Your task to perform on an android device: Go to wifi settings Image 0: 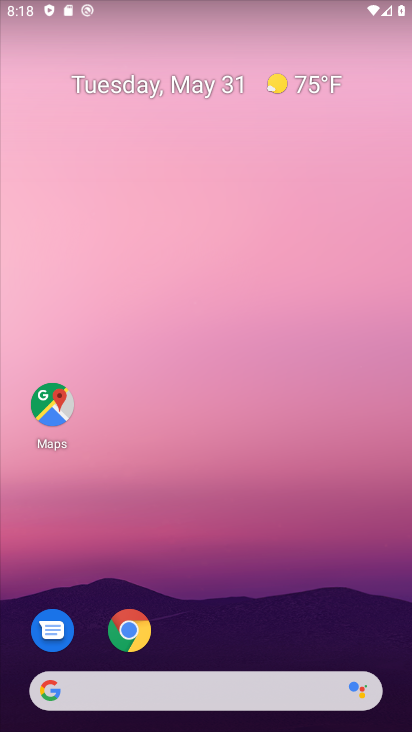
Step 0: drag from (202, 668) to (283, 183)
Your task to perform on an android device: Go to wifi settings Image 1: 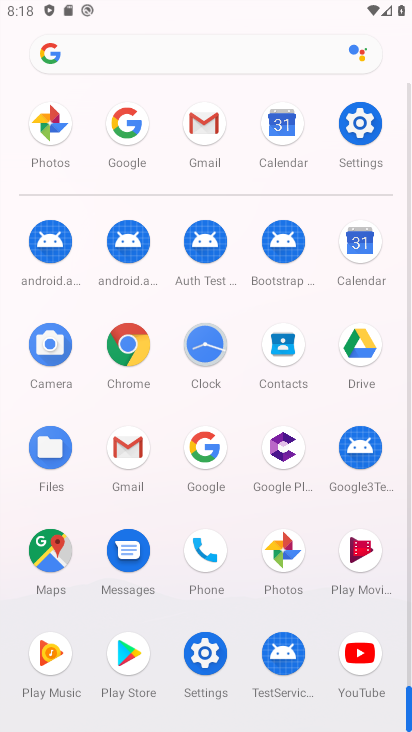
Step 1: click (370, 143)
Your task to perform on an android device: Go to wifi settings Image 2: 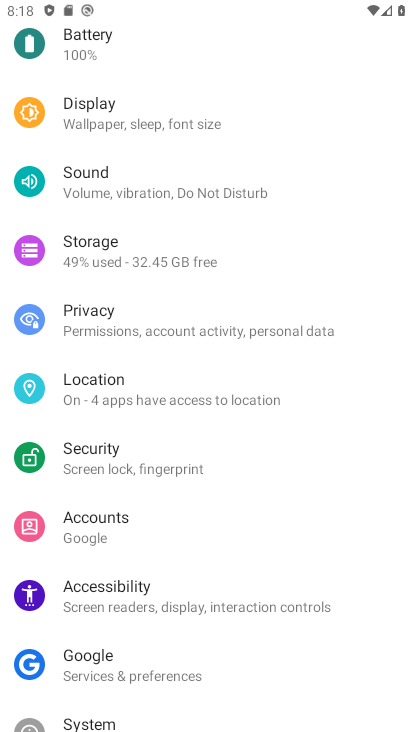
Step 2: drag from (220, 279) to (203, 538)
Your task to perform on an android device: Go to wifi settings Image 3: 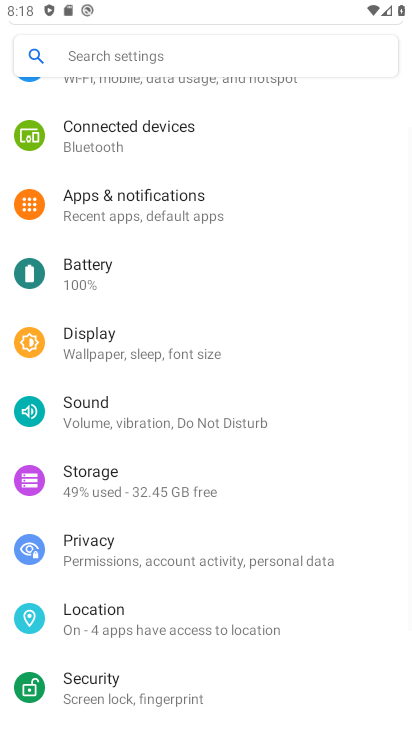
Step 3: drag from (162, 304) to (189, 655)
Your task to perform on an android device: Go to wifi settings Image 4: 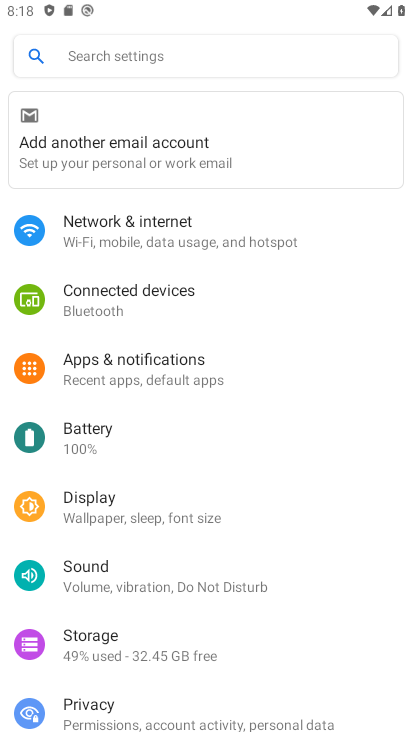
Step 4: click (199, 224)
Your task to perform on an android device: Go to wifi settings Image 5: 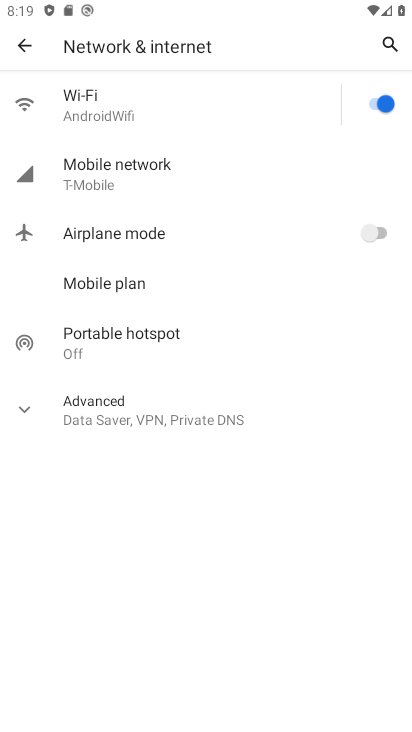
Step 5: click (144, 99)
Your task to perform on an android device: Go to wifi settings Image 6: 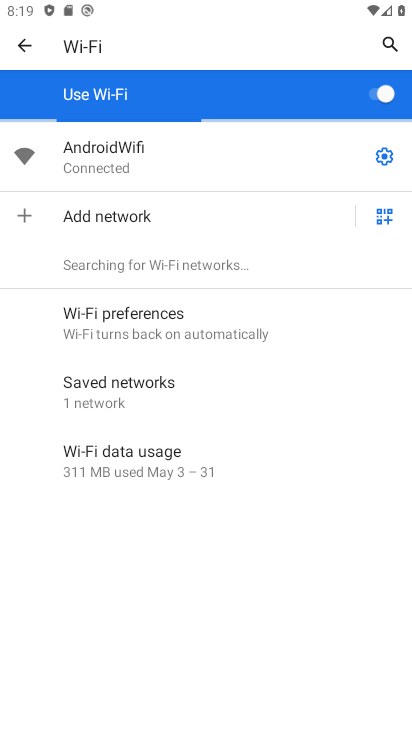
Step 6: task complete